Your task to perform on an android device: turn pop-ups on in chrome Image 0: 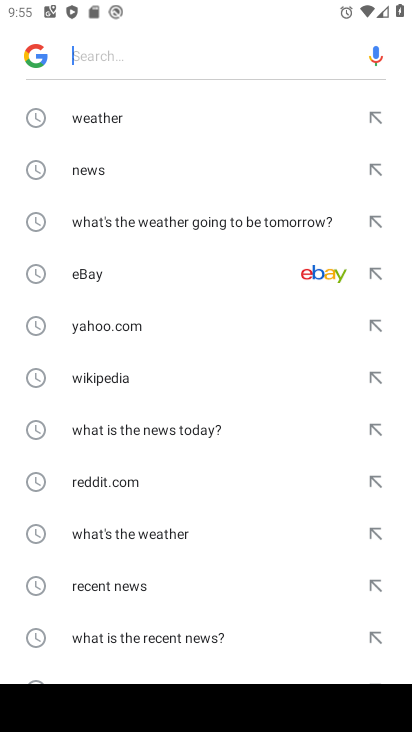
Step 0: press home button
Your task to perform on an android device: turn pop-ups on in chrome Image 1: 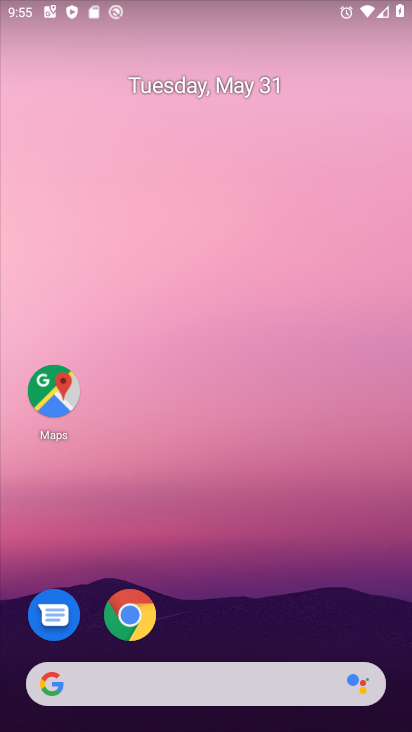
Step 1: drag from (251, 612) to (329, 0)
Your task to perform on an android device: turn pop-ups on in chrome Image 2: 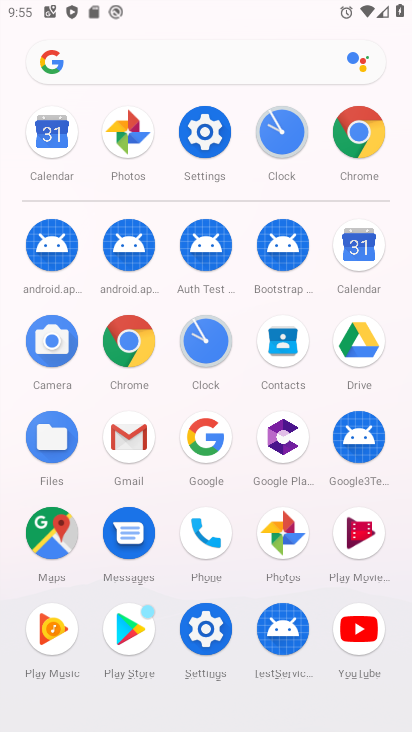
Step 2: click (377, 121)
Your task to perform on an android device: turn pop-ups on in chrome Image 3: 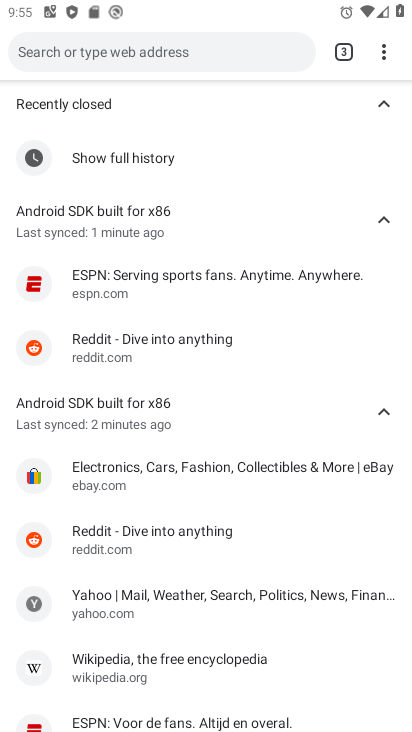
Step 3: drag from (382, 49) to (273, 447)
Your task to perform on an android device: turn pop-ups on in chrome Image 4: 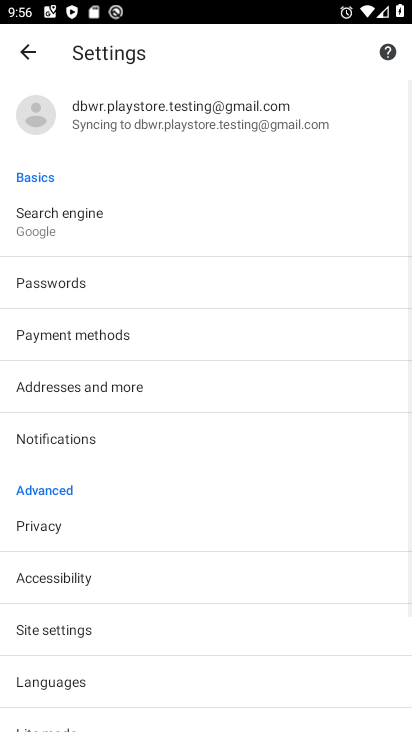
Step 4: drag from (137, 600) to (240, 182)
Your task to perform on an android device: turn pop-ups on in chrome Image 5: 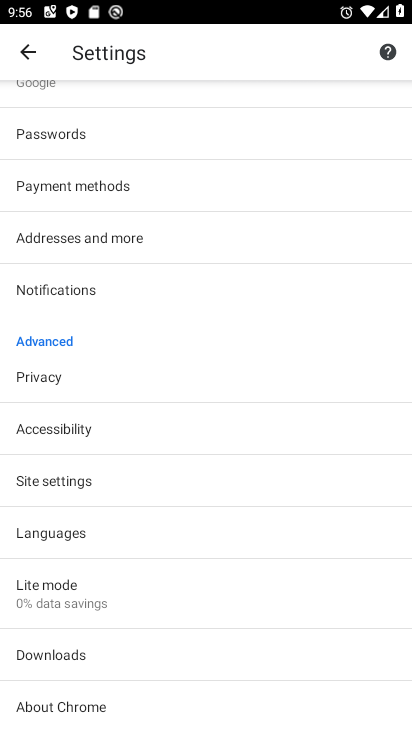
Step 5: click (89, 482)
Your task to perform on an android device: turn pop-ups on in chrome Image 6: 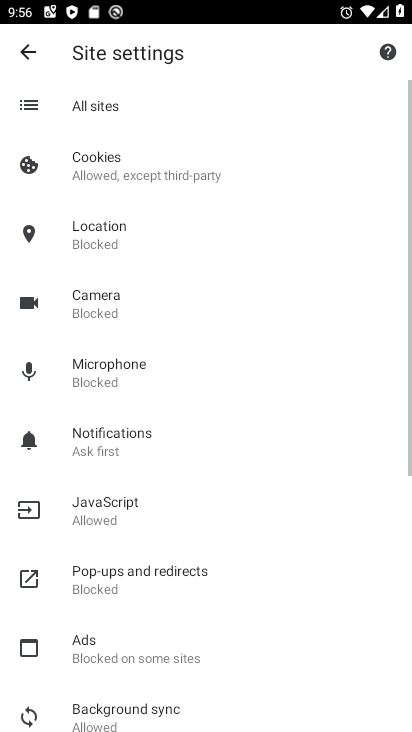
Step 6: drag from (154, 661) to (225, 335)
Your task to perform on an android device: turn pop-ups on in chrome Image 7: 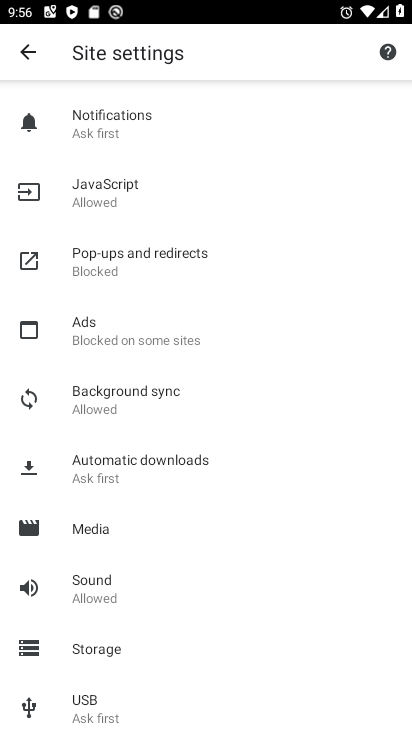
Step 7: click (158, 254)
Your task to perform on an android device: turn pop-ups on in chrome Image 8: 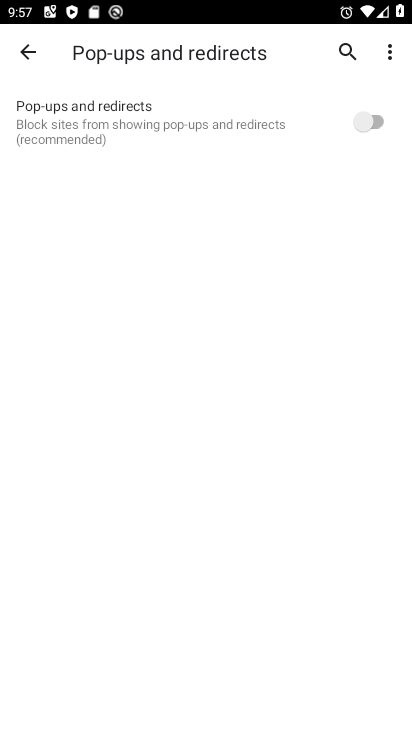
Step 8: click (381, 117)
Your task to perform on an android device: turn pop-ups on in chrome Image 9: 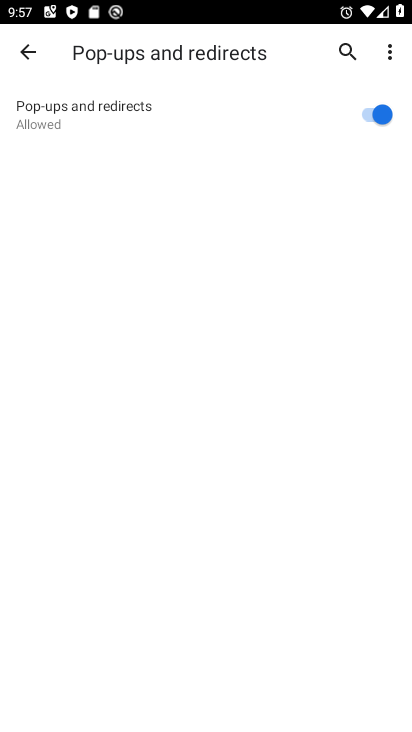
Step 9: task complete